Your task to perform on an android device: visit the assistant section in the google photos Image 0: 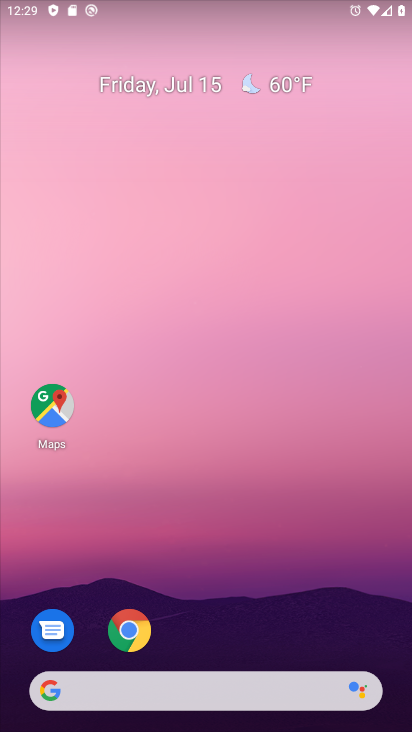
Step 0: drag from (185, 456) to (199, 29)
Your task to perform on an android device: visit the assistant section in the google photos Image 1: 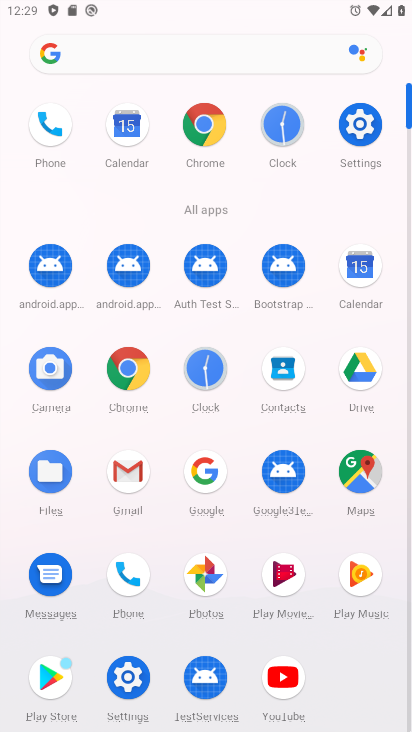
Step 1: click (201, 574)
Your task to perform on an android device: visit the assistant section in the google photos Image 2: 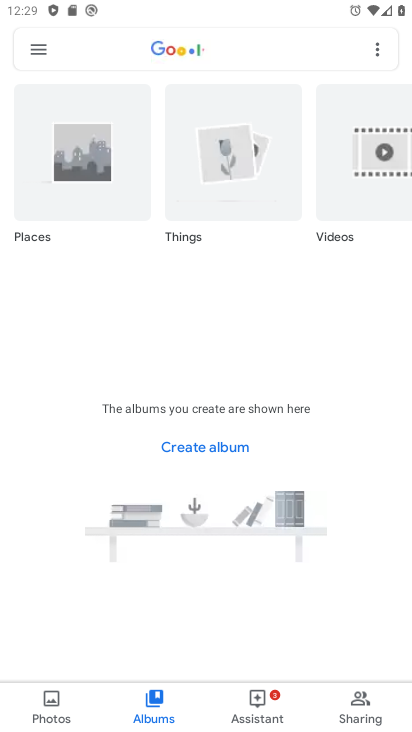
Step 2: click (260, 710)
Your task to perform on an android device: visit the assistant section in the google photos Image 3: 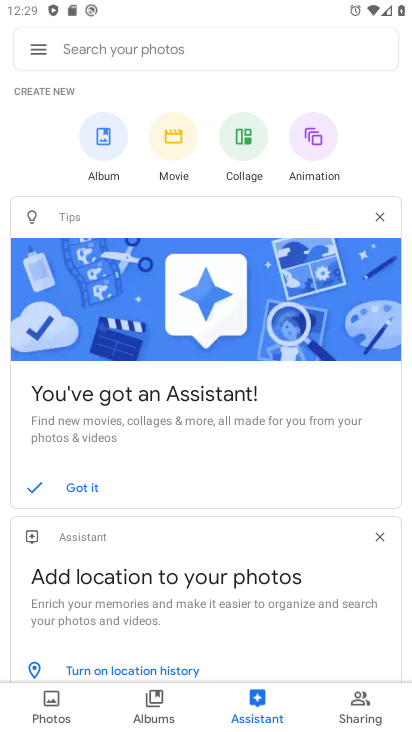
Step 3: task complete